Your task to perform on an android device: Do I have any events tomorrow? Image 0: 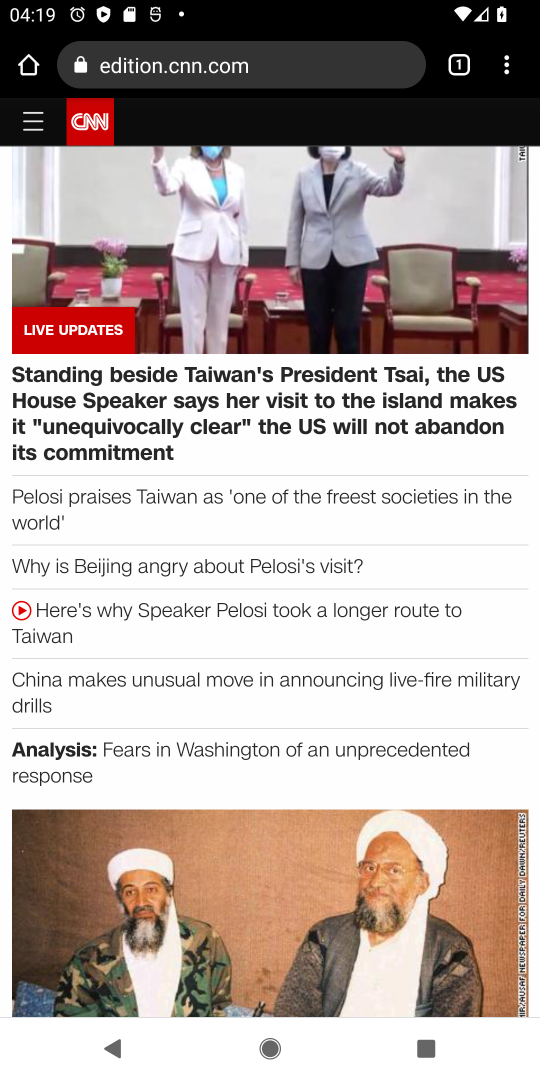
Step 0: press home button
Your task to perform on an android device: Do I have any events tomorrow? Image 1: 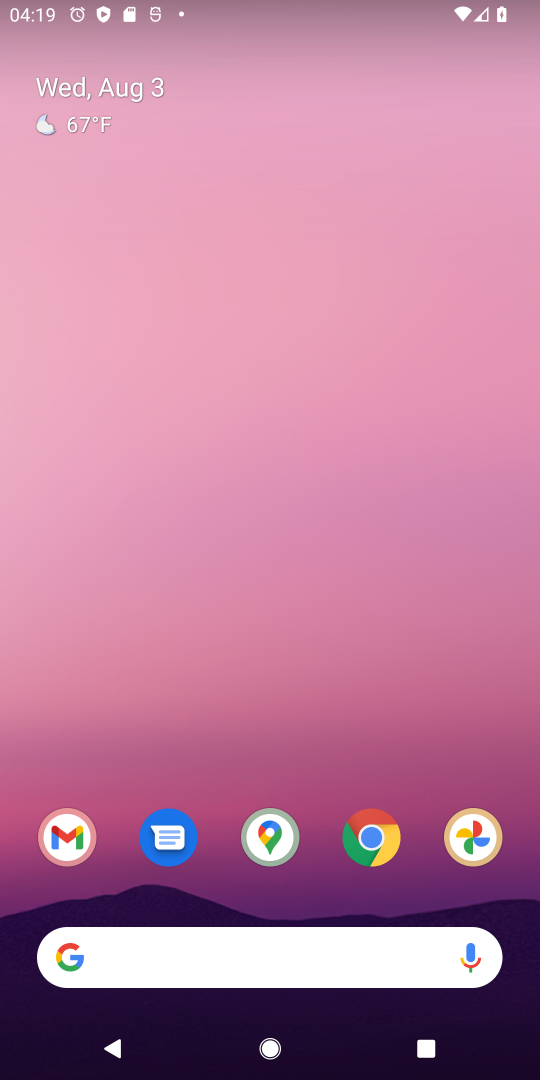
Step 1: drag from (413, 882) to (375, 293)
Your task to perform on an android device: Do I have any events tomorrow? Image 2: 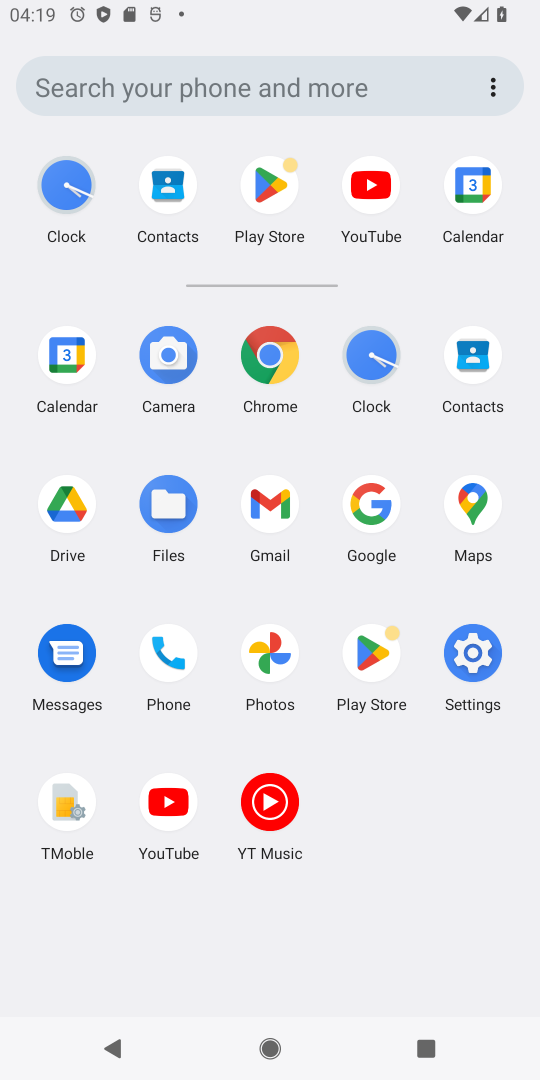
Step 2: click (69, 354)
Your task to perform on an android device: Do I have any events tomorrow? Image 3: 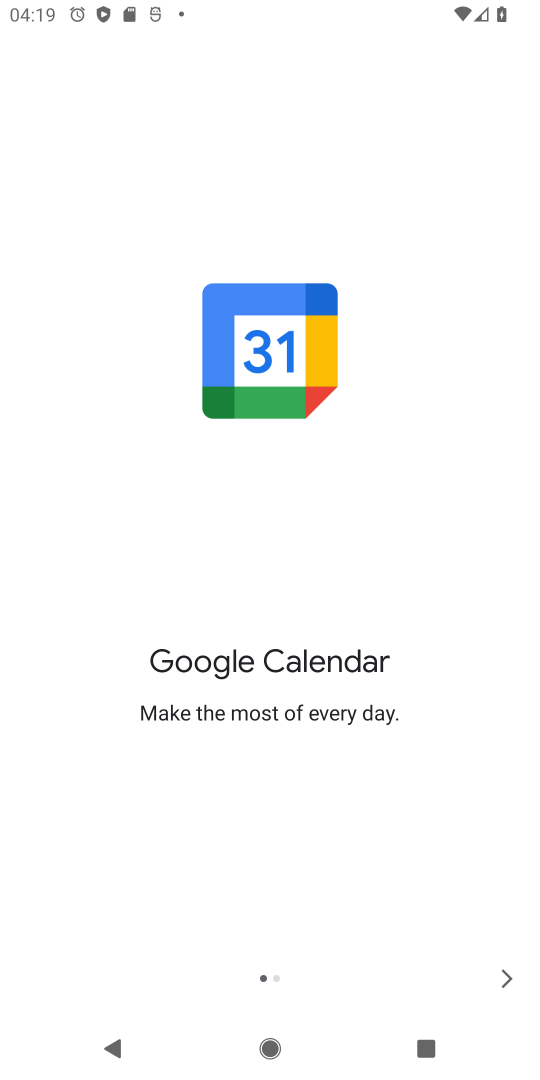
Step 3: click (507, 974)
Your task to perform on an android device: Do I have any events tomorrow? Image 4: 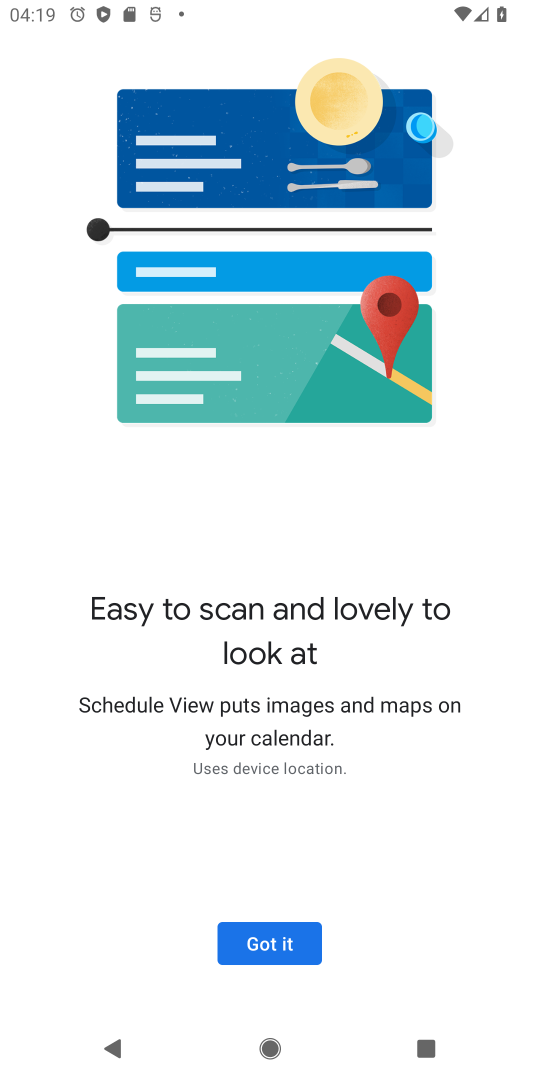
Step 4: click (507, 974)
Your task to perform on an android device: Do I have any events tomorrow? Image 5: 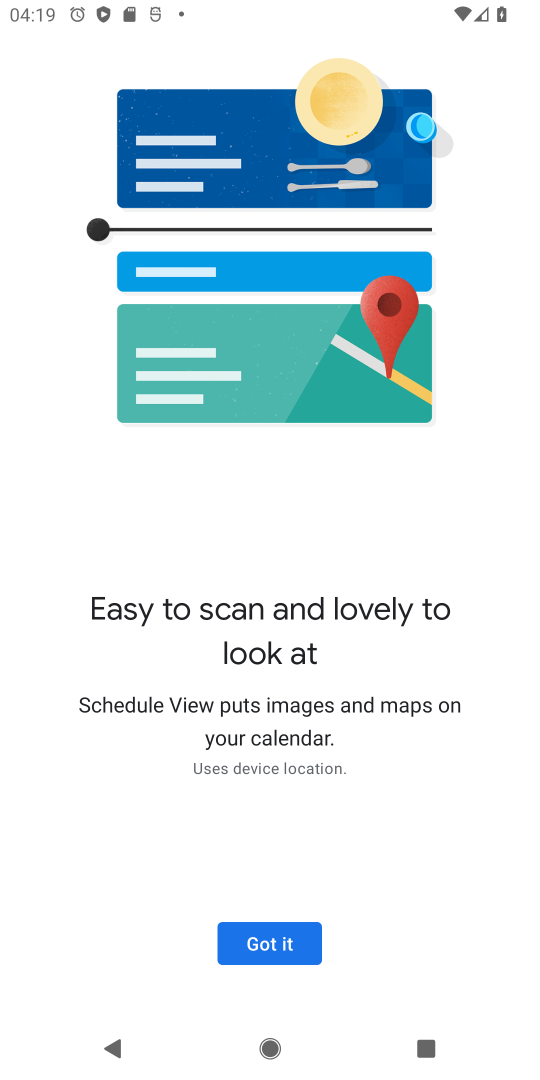
Step 5: click (277, 945)
Your task to perform on an android device: Do I have any events tomorrow? Image 6: 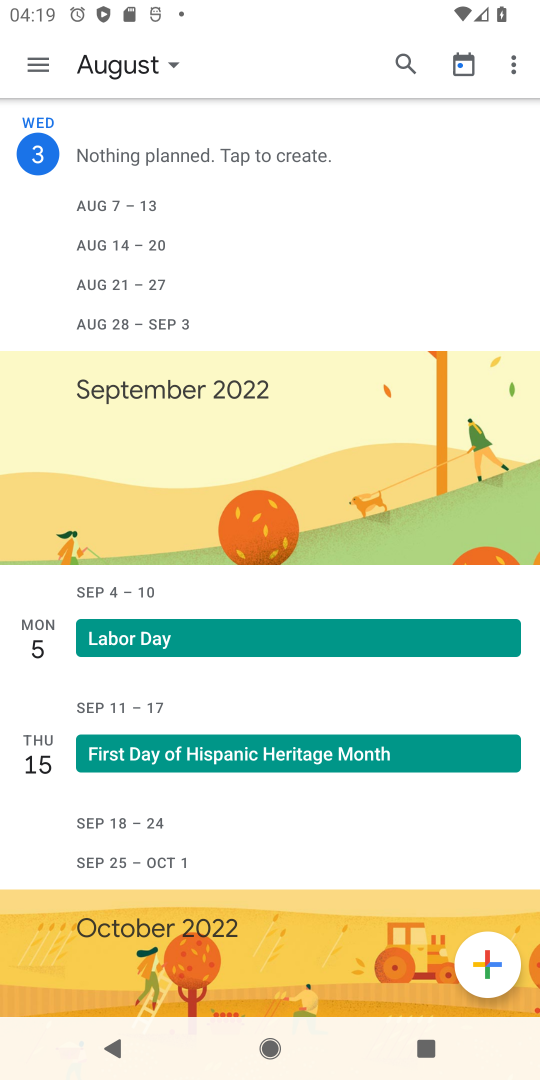
Step 6: click (28, 62)
Your task to perform on an android device: Do I have any events tomorrow? Image 7: 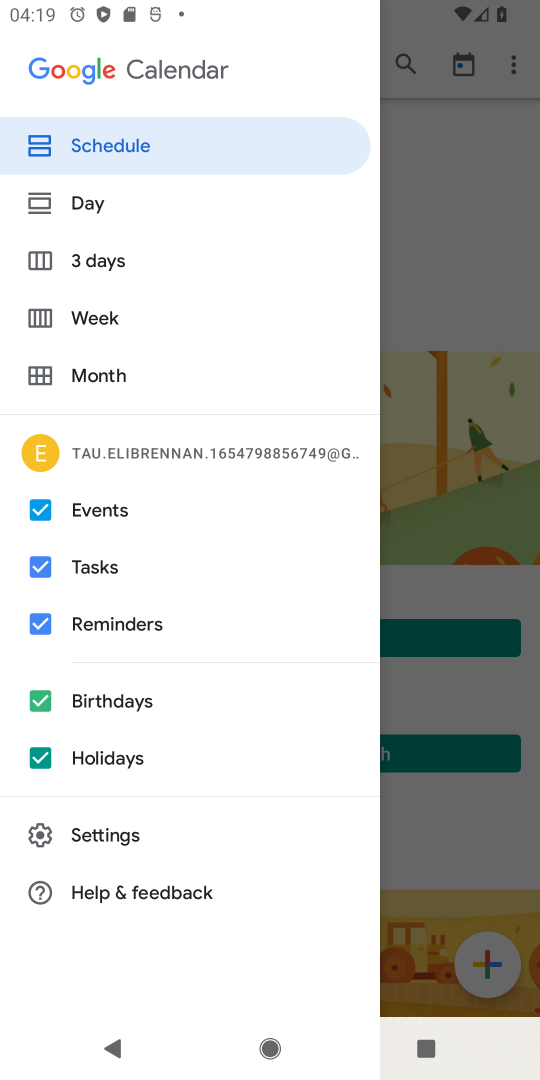
Step 7: click (90, 200)
Your task to perform on an android device: Do I have any events tomorrow? Image 8: 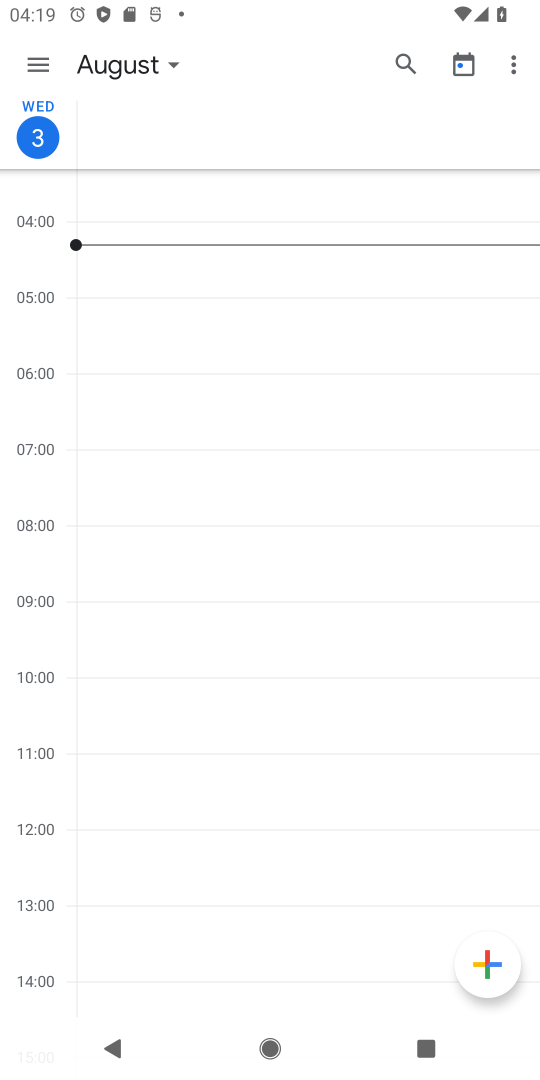
Step 8: click (169, 56)
Your task to perform on an android device: Do I have any events tomorrow? Image 9: 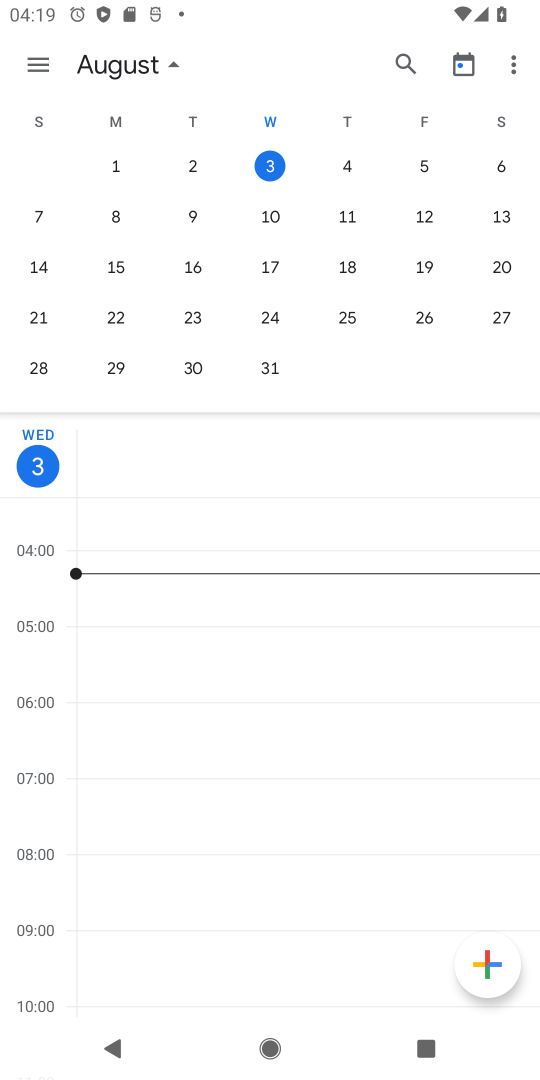
Step 9: click (347, 165)
Your task to perform on an android device: Do I have any events tomorrow? Image 10: 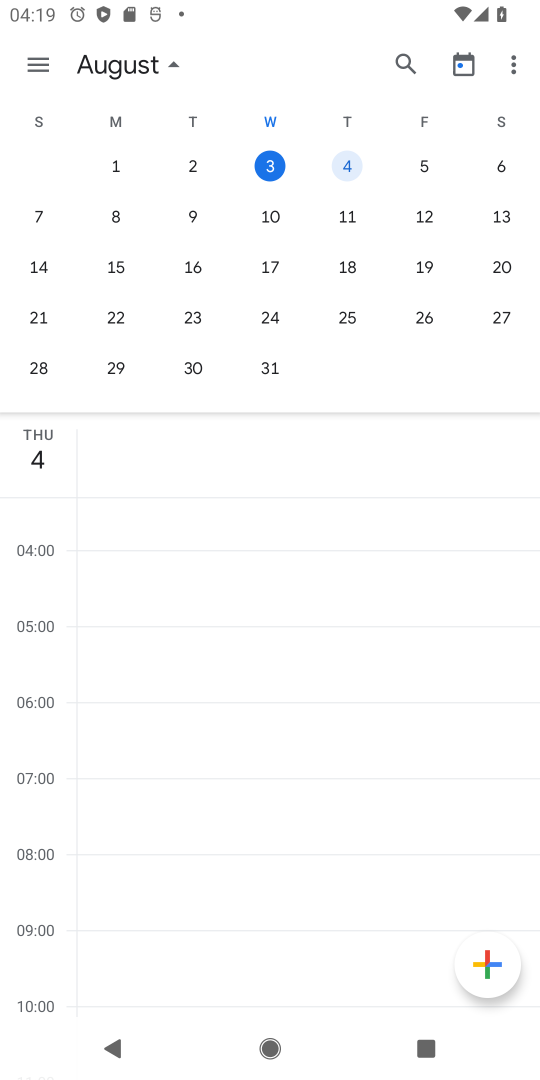
Step 10: task complete